Your task to perform on an android device: install app "Mercado Libre" Image 0: 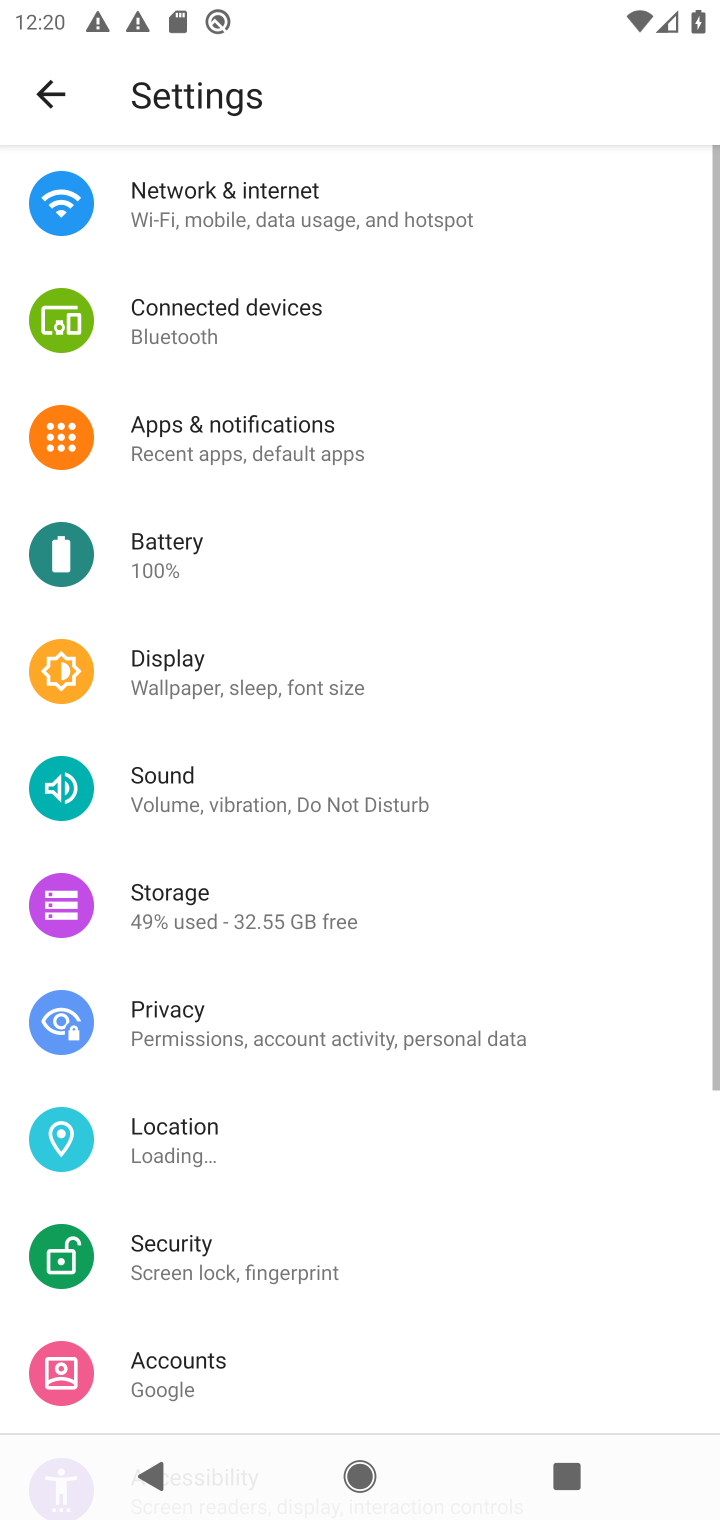
Step 0: press home button
Your task to perform on an android device: install app "Mercado Libre" Image 1: 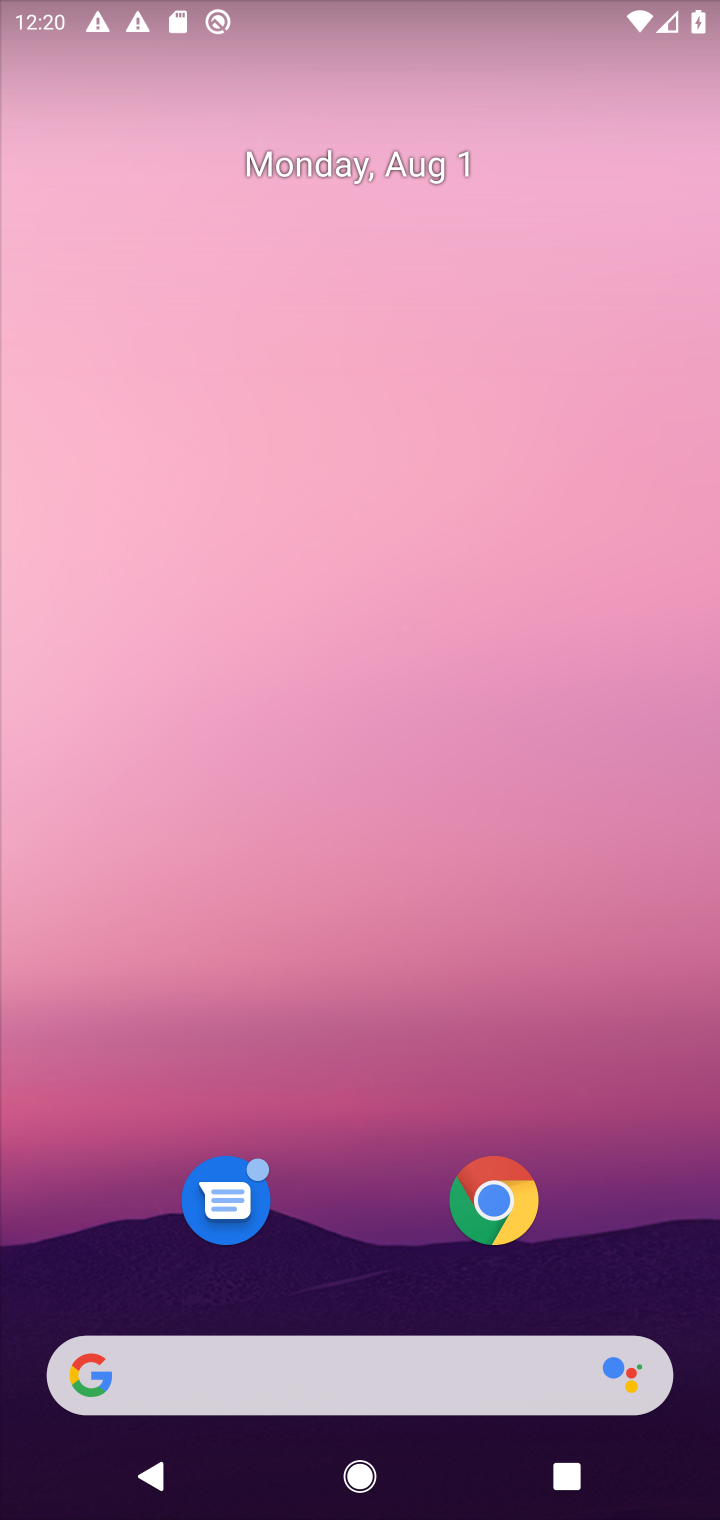
Step 1: click (498, 36)
Your task to perform on an android device: install app "Mercado Libre" Image 2: 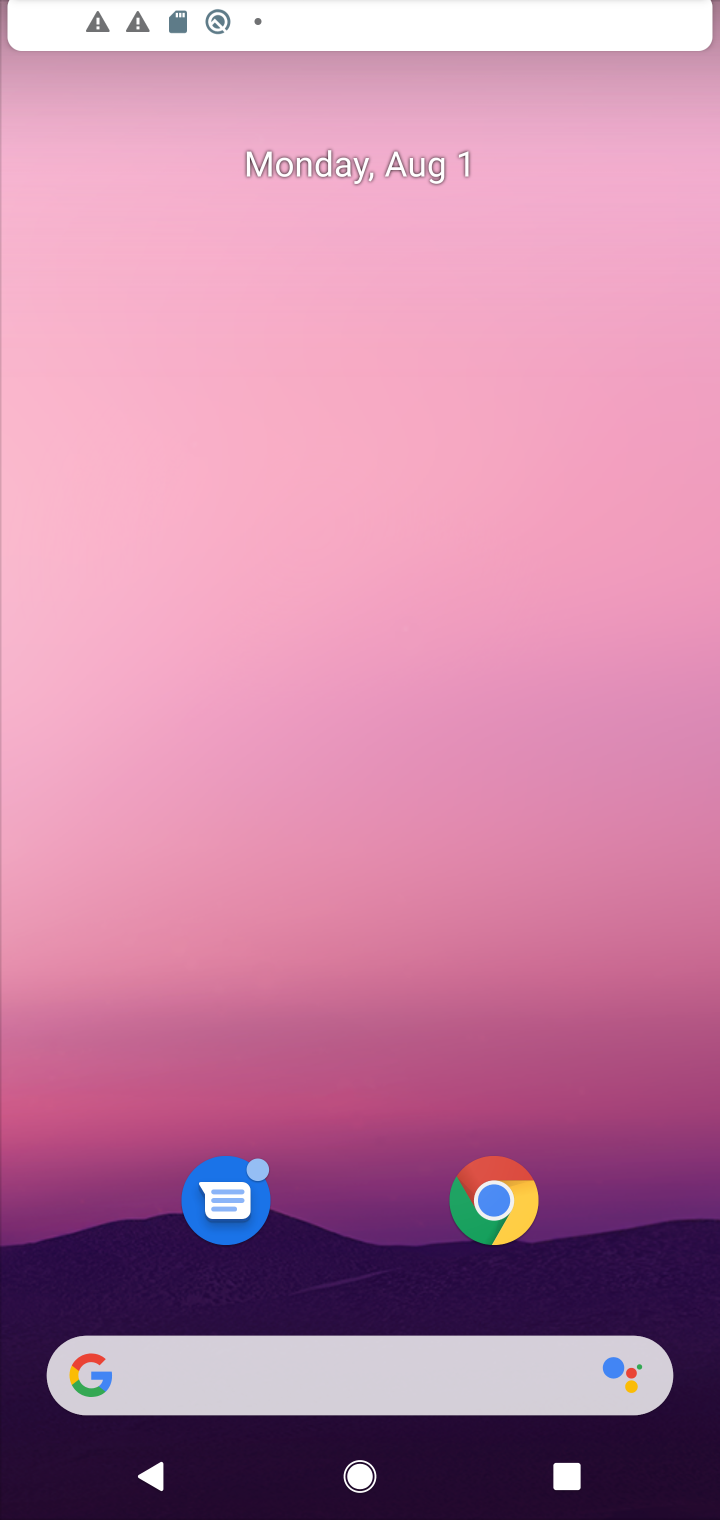
Step 2: click (283, 450)
Your task to perform on an android device: install app "Mercado Libre" Image 3: 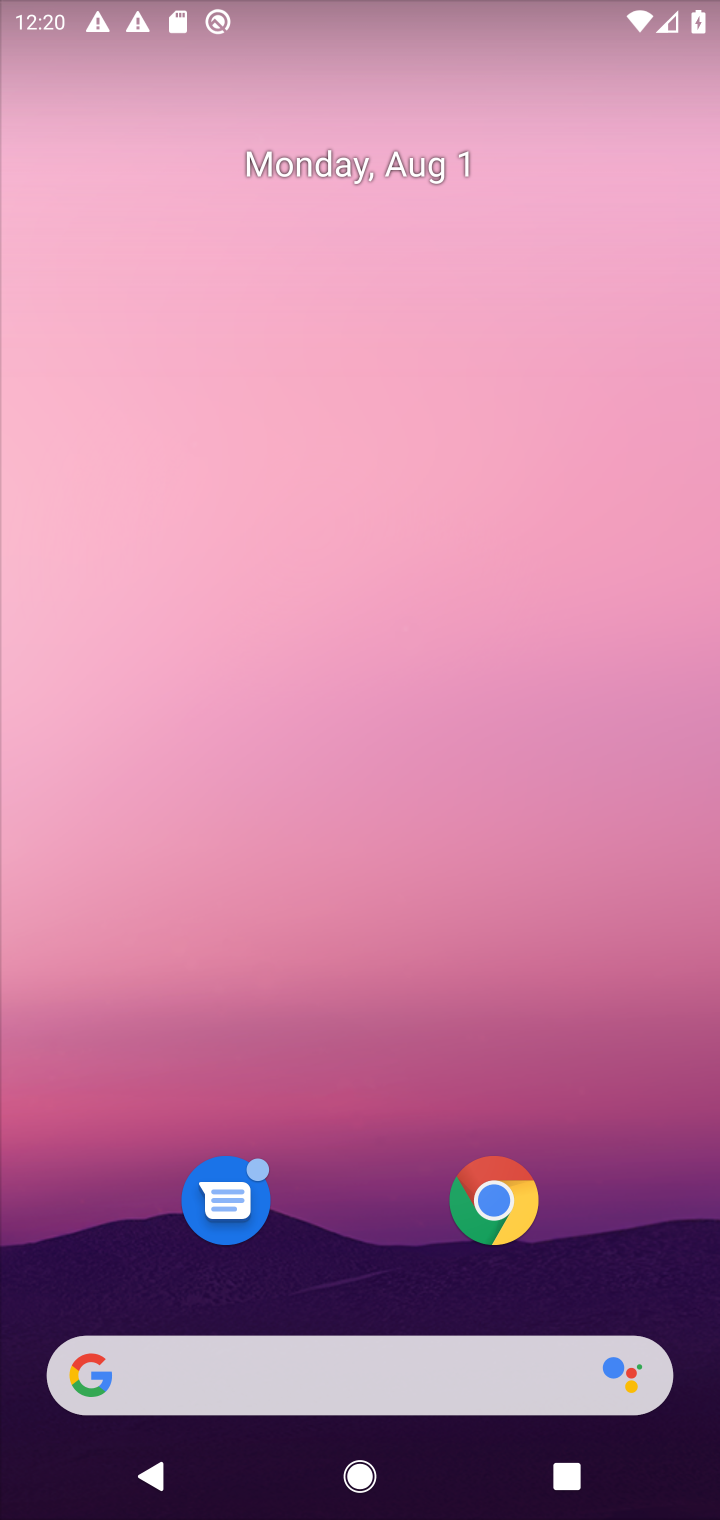
Step 3: drag from (378, 902) to (378, 85)
Your task to perform on an android device: install app "Mercado Libre" Image 4: 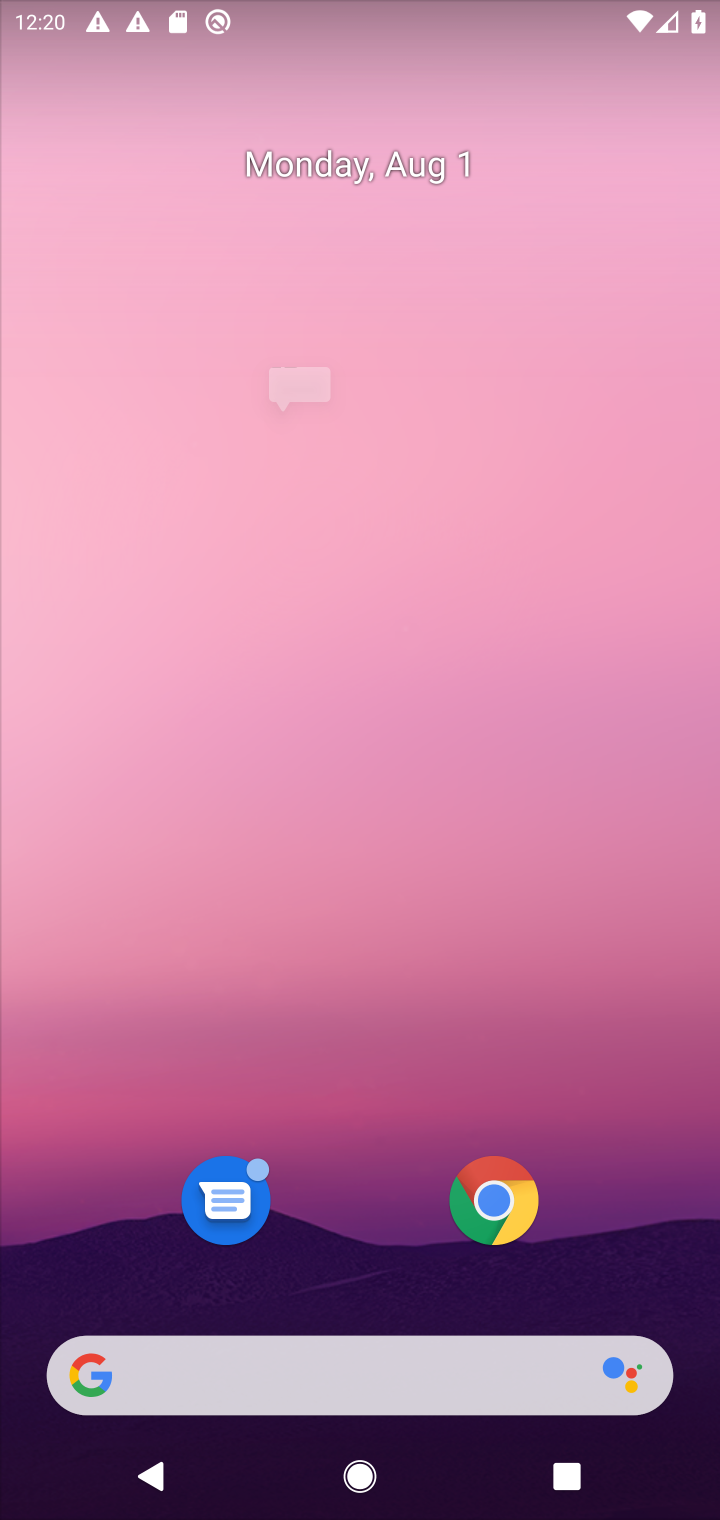
Step 4: click (380, 356)
Your task to perform on an android device: install app "Mercado Libre" Image 5: 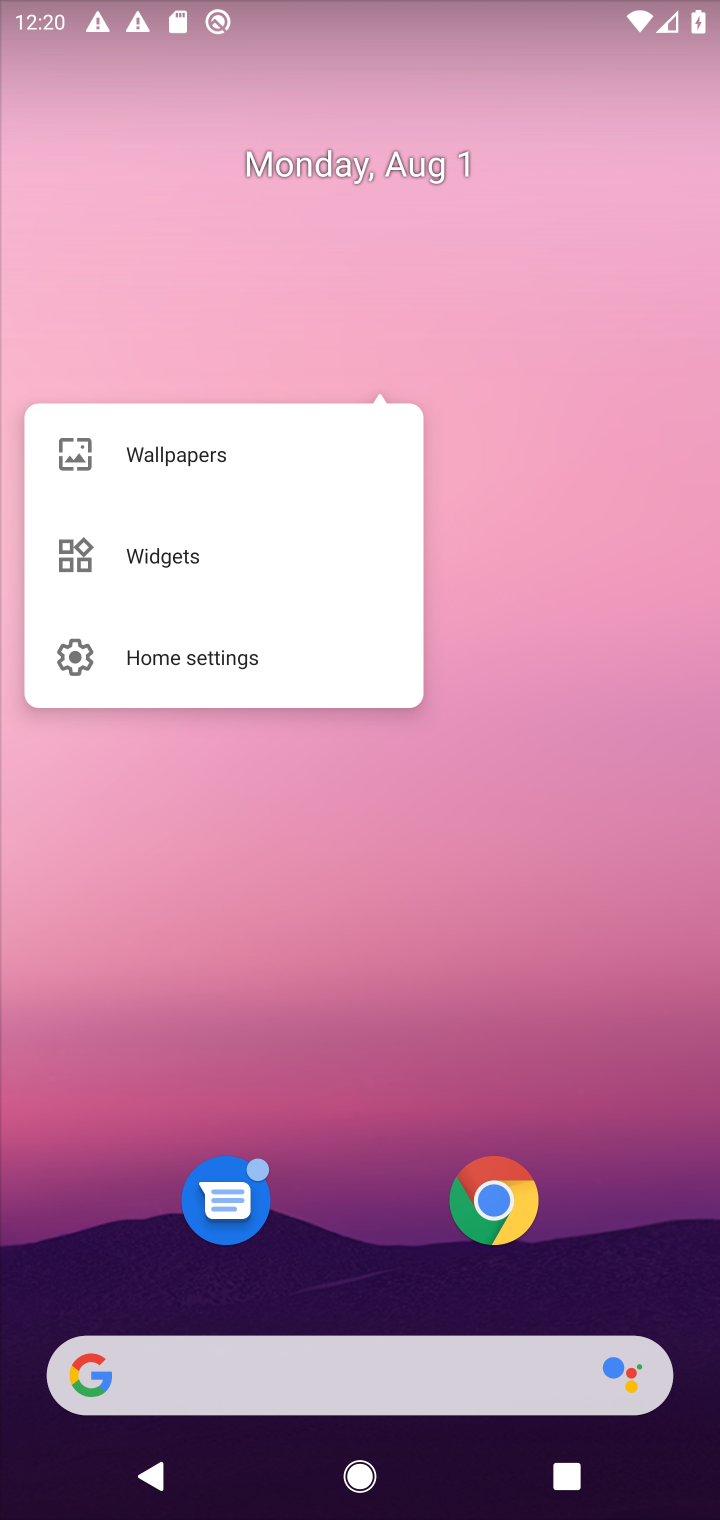
Step 5: drag from (361, 1153) to (350, 309)
Your task to perform on an android device: install app "Mercado Libre" Image 6: 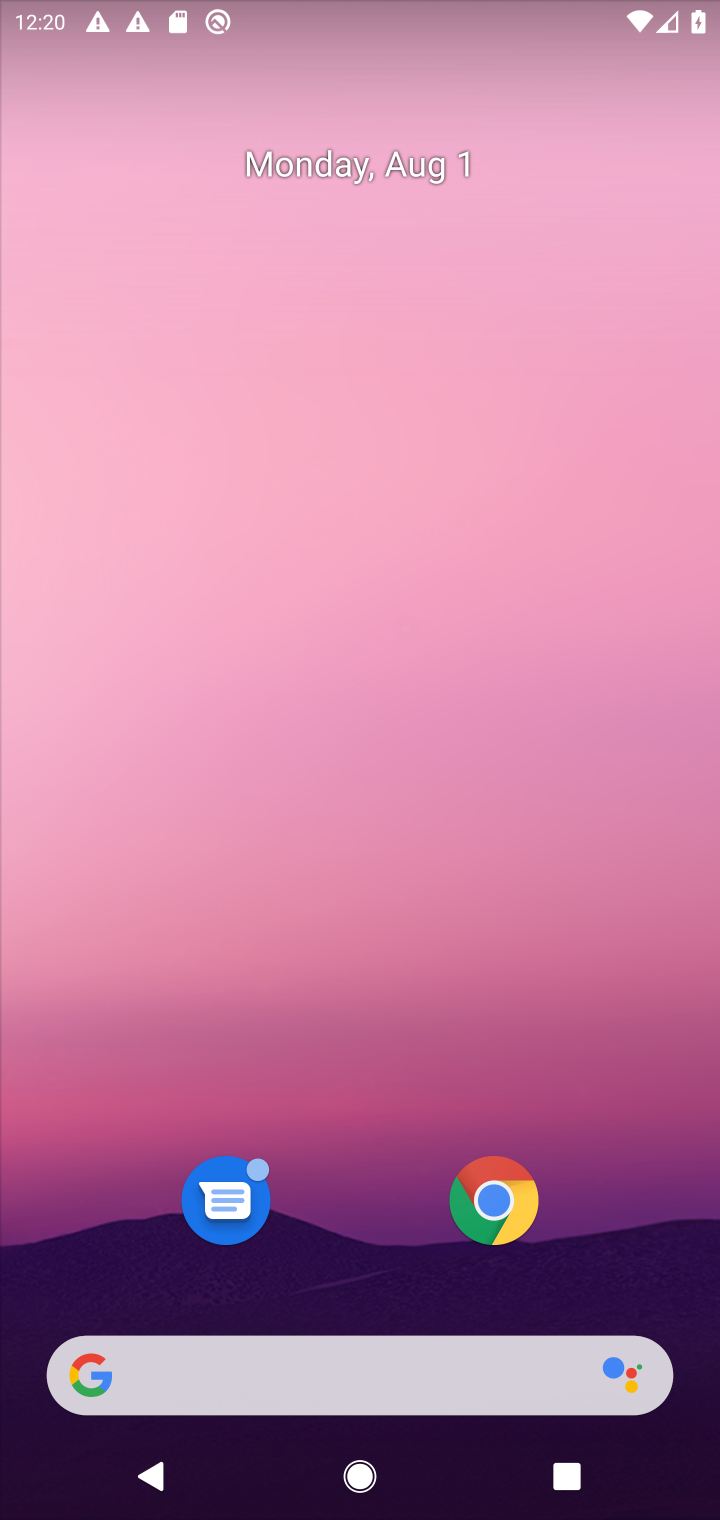
Step 6: drag from (338, 1296) to (306, 562)
Your task to perform on an android device: install app "Mercado Libre" Image 7: 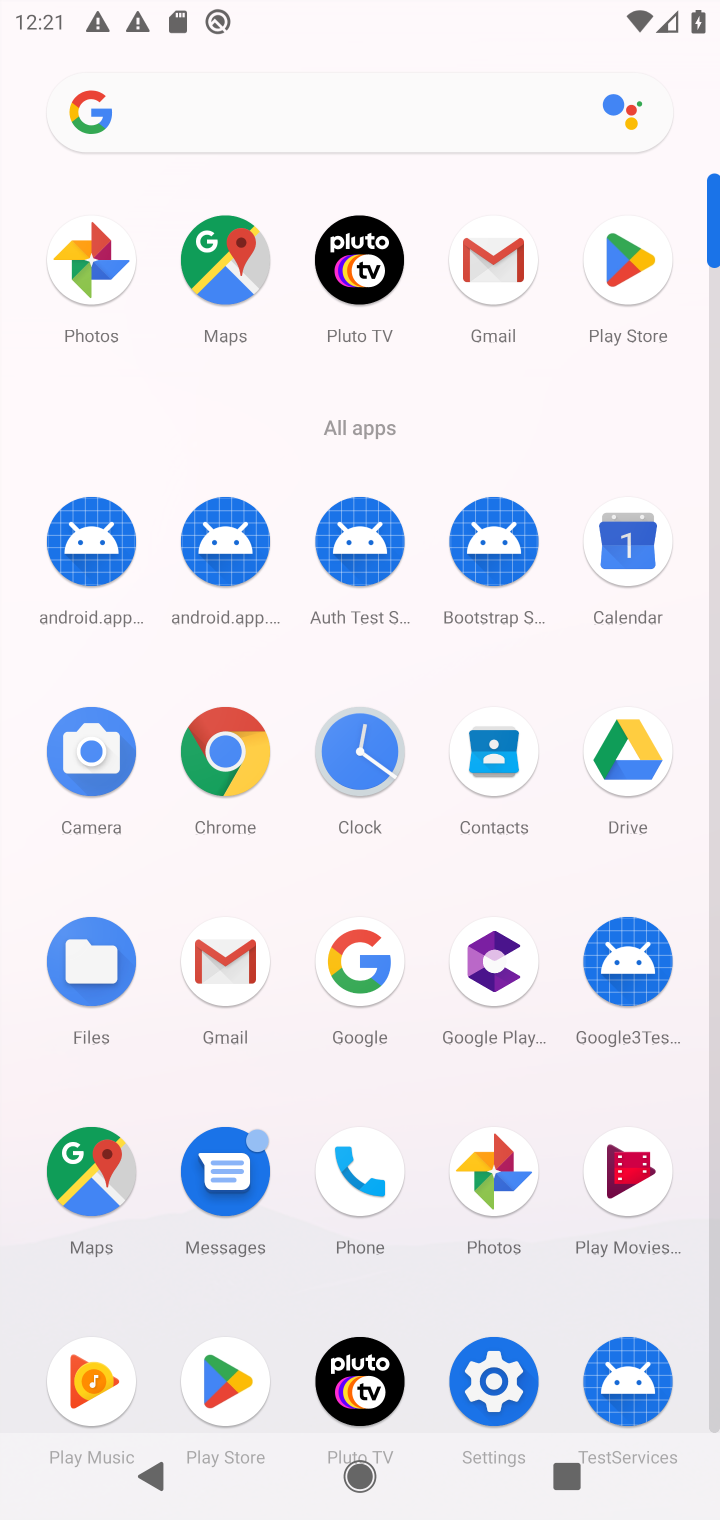
Step 7: click (614, 265)
Your task to perform on an android device: install app "Mercado Libre" Image 8: 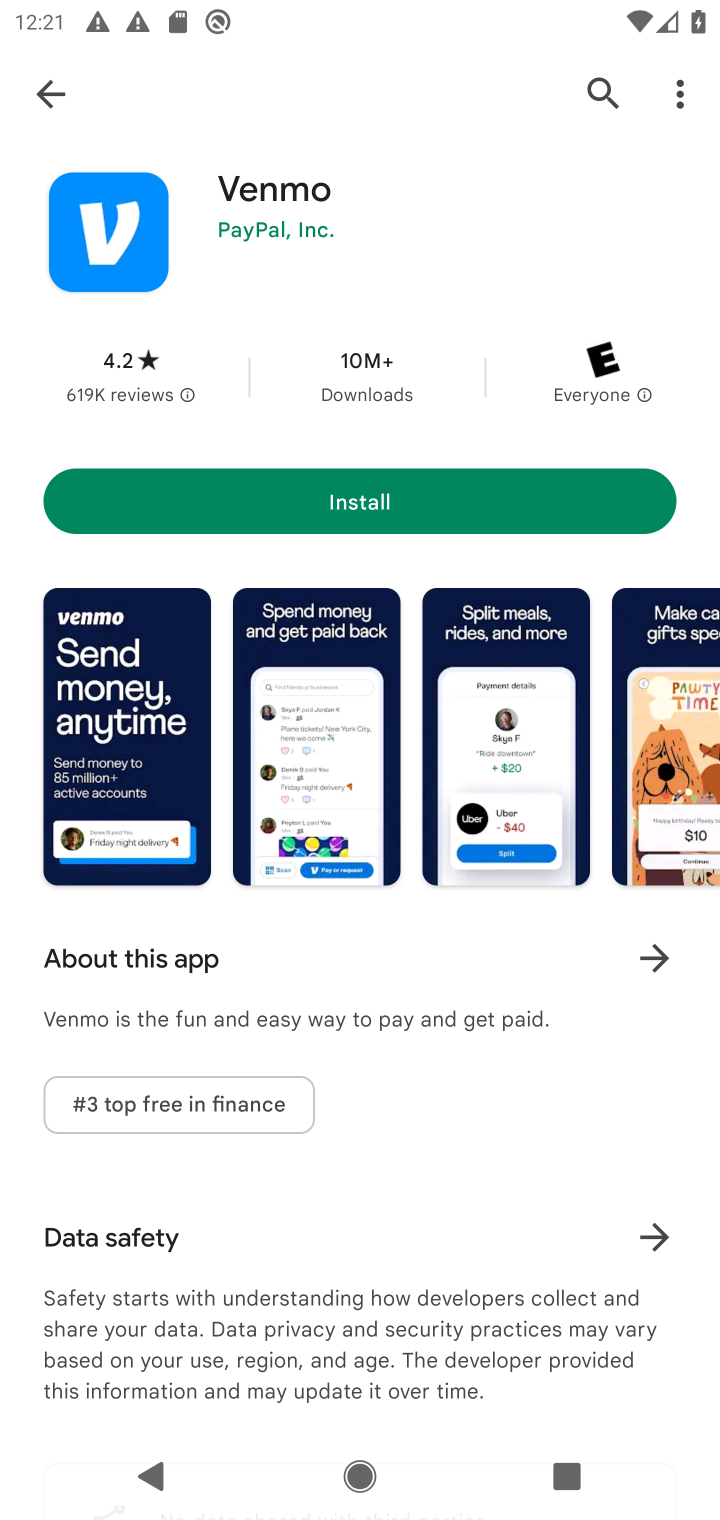
Step 8: click (639, 265)
Your task to perform on an android device: install app "Mercado Libre" Image 9: 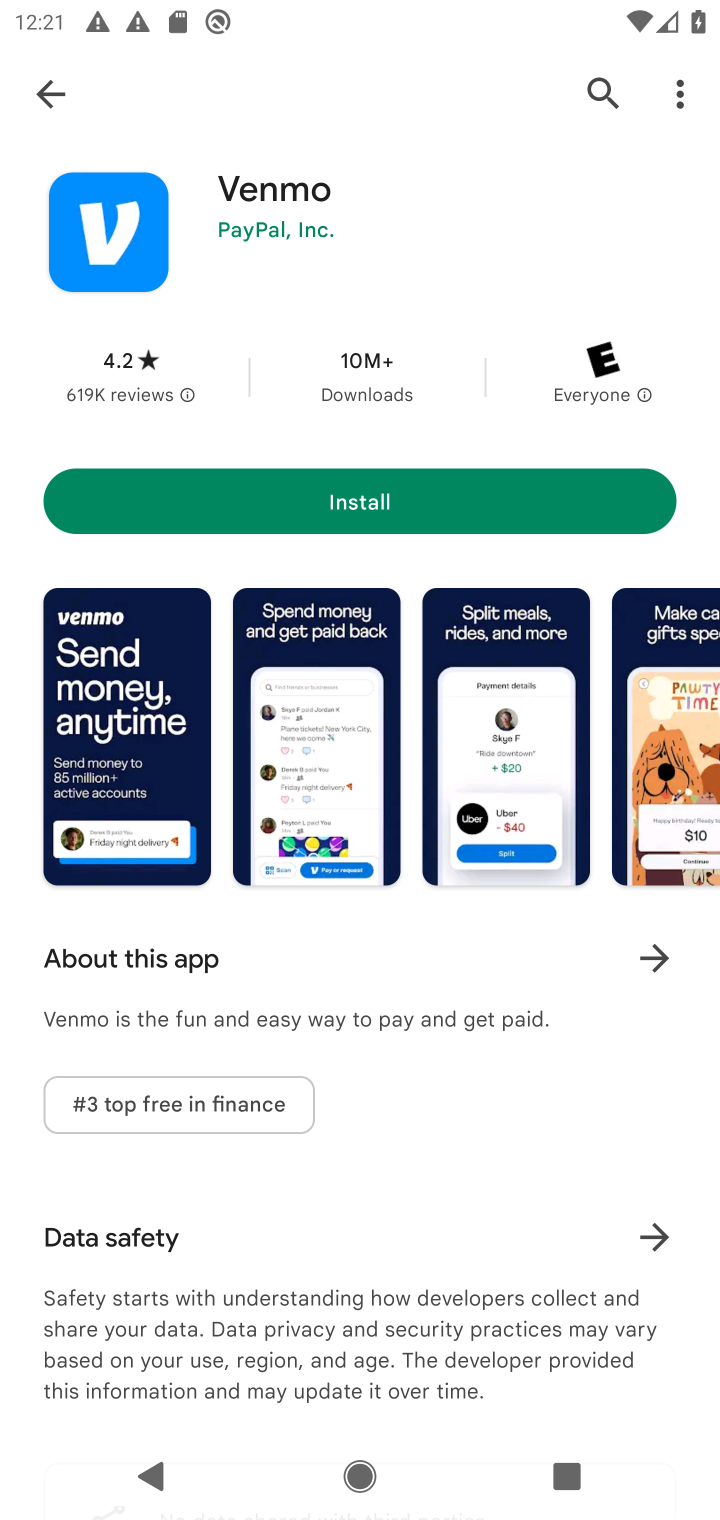
Step 9: click (616, 77)
Your task to perform on an android device: install app "Mercado Libre" Image 10: 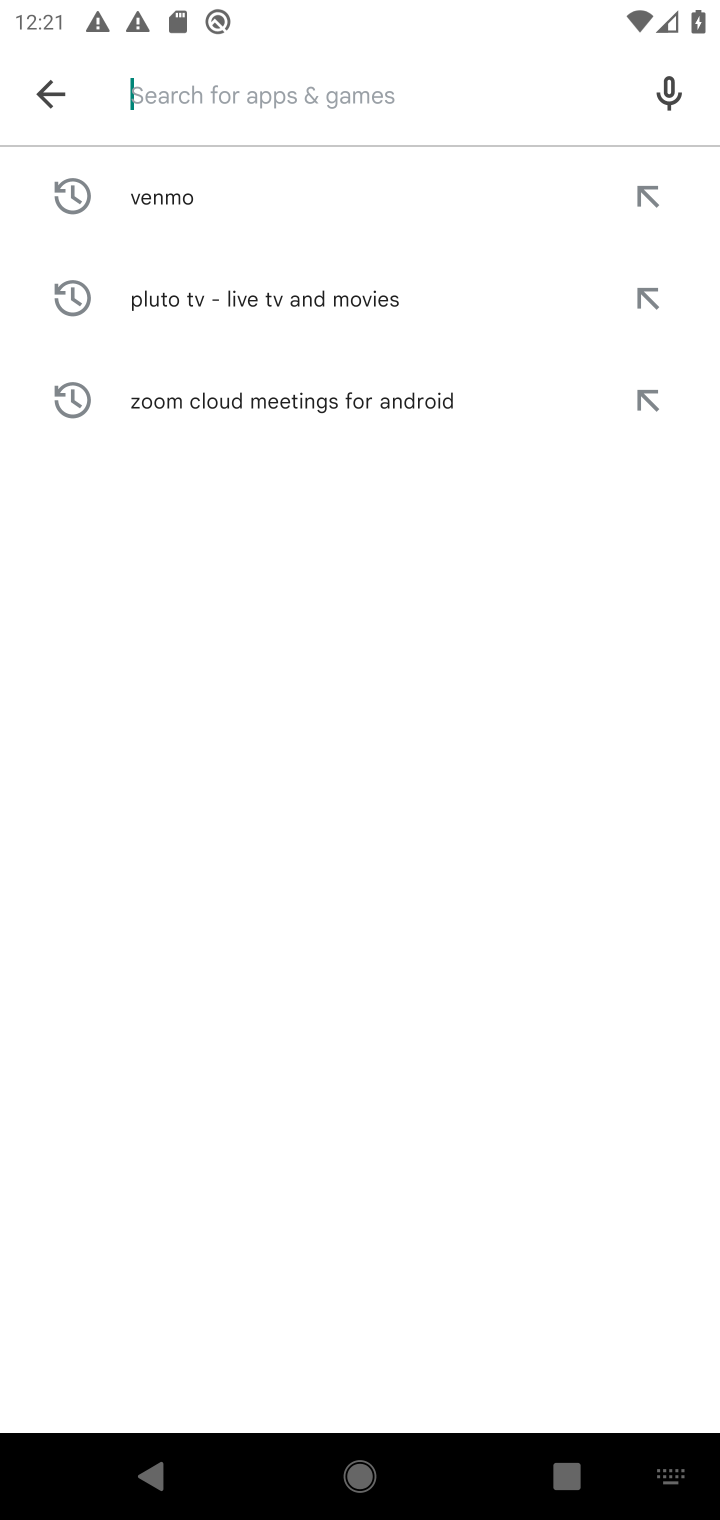
Step 10: click (596, 90)
Your task to perform on an android device: install app "Mercado Libre" Image 11: 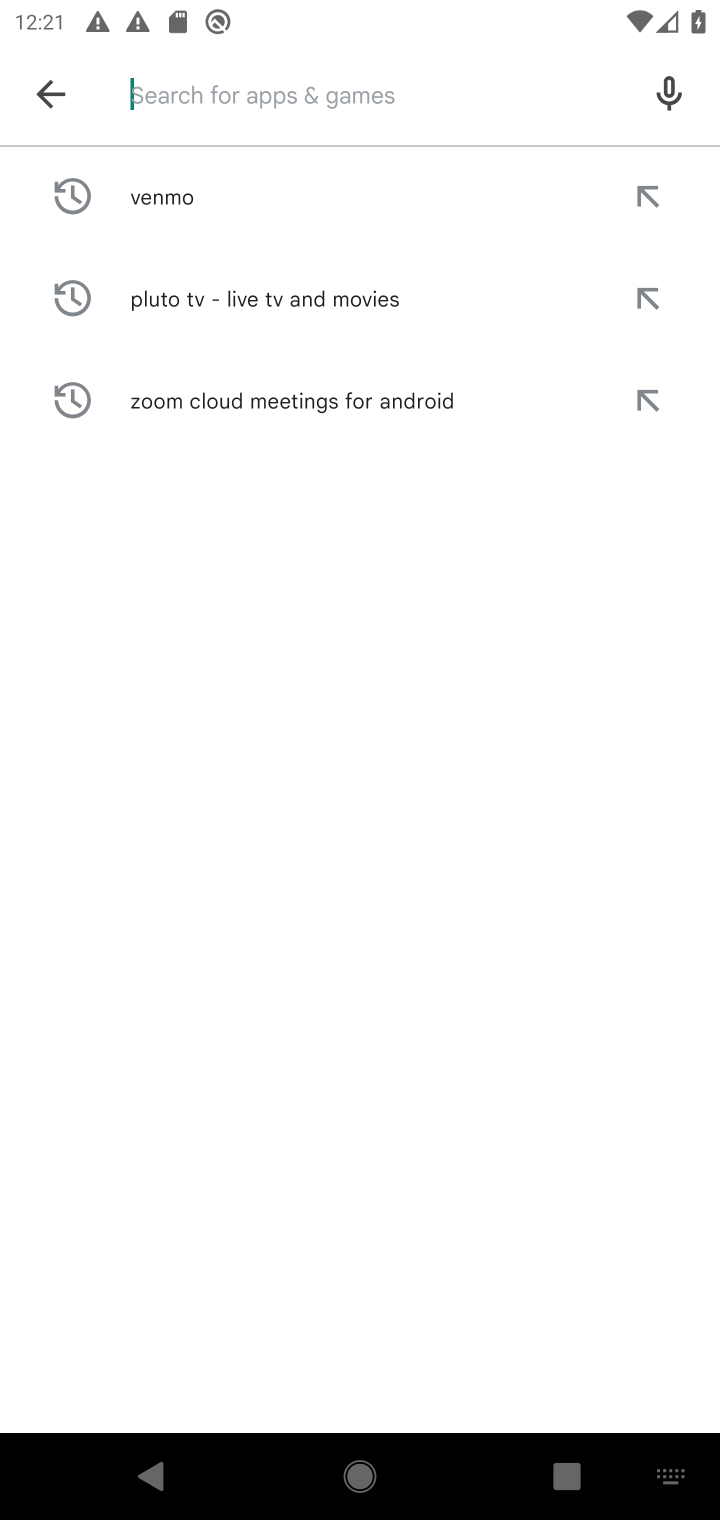
Step 11: type "mercado libre"
Your task to perform on an android device: install app "Mercado Libre" Image 12: 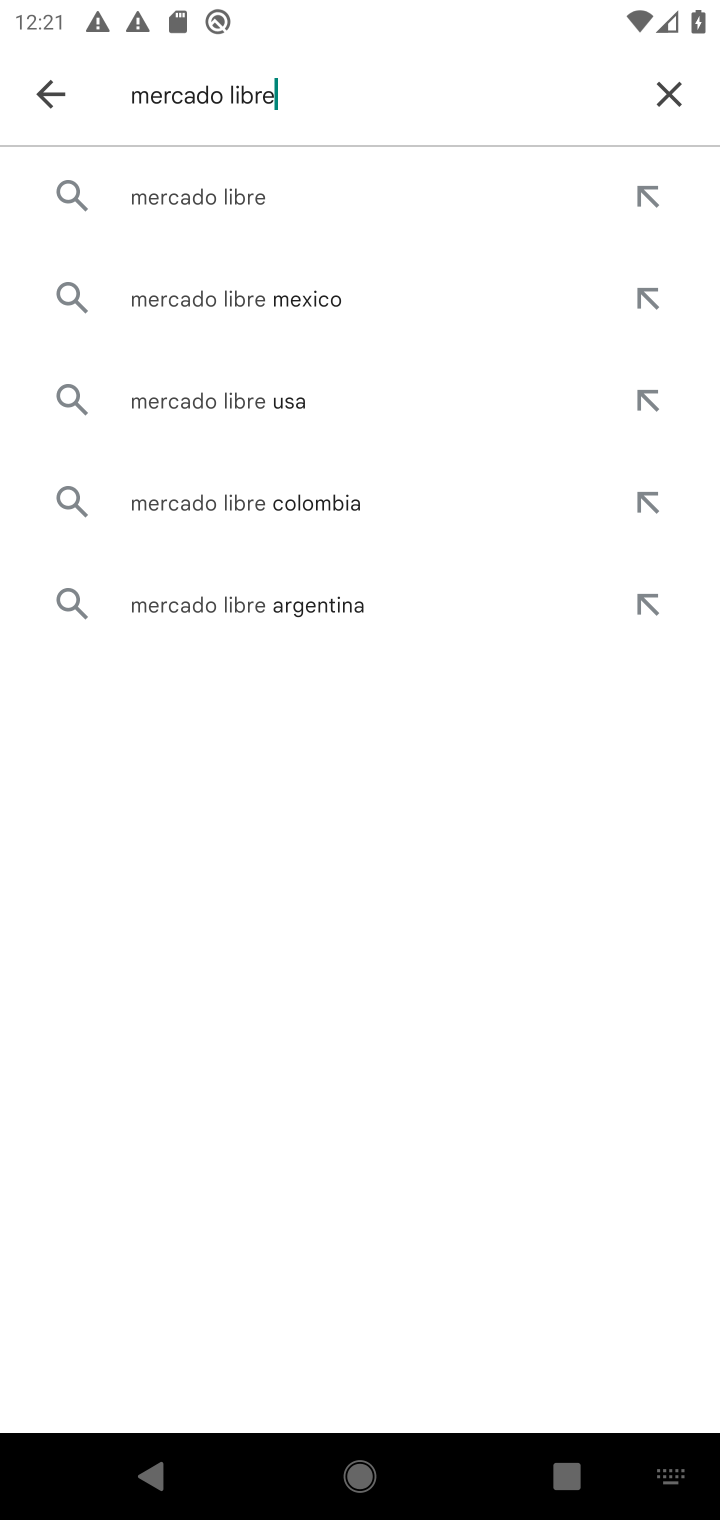
Step 12: click (294, 185)
Your task to perform on an android device: install app "Mercado Libre" Image 13: 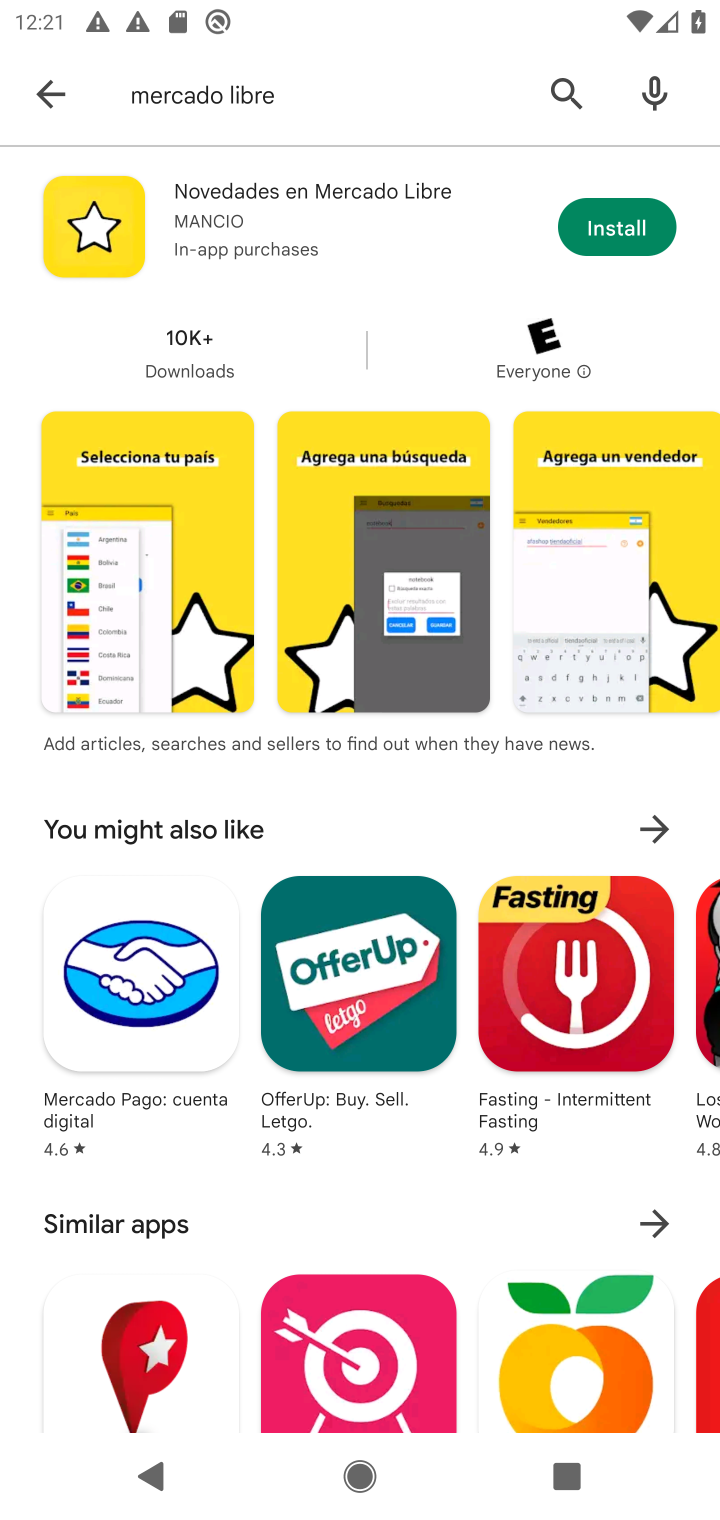
Step 13: click (316, 201)
Your task to perform on an android device: install app "Mercado Libre" Image 14: 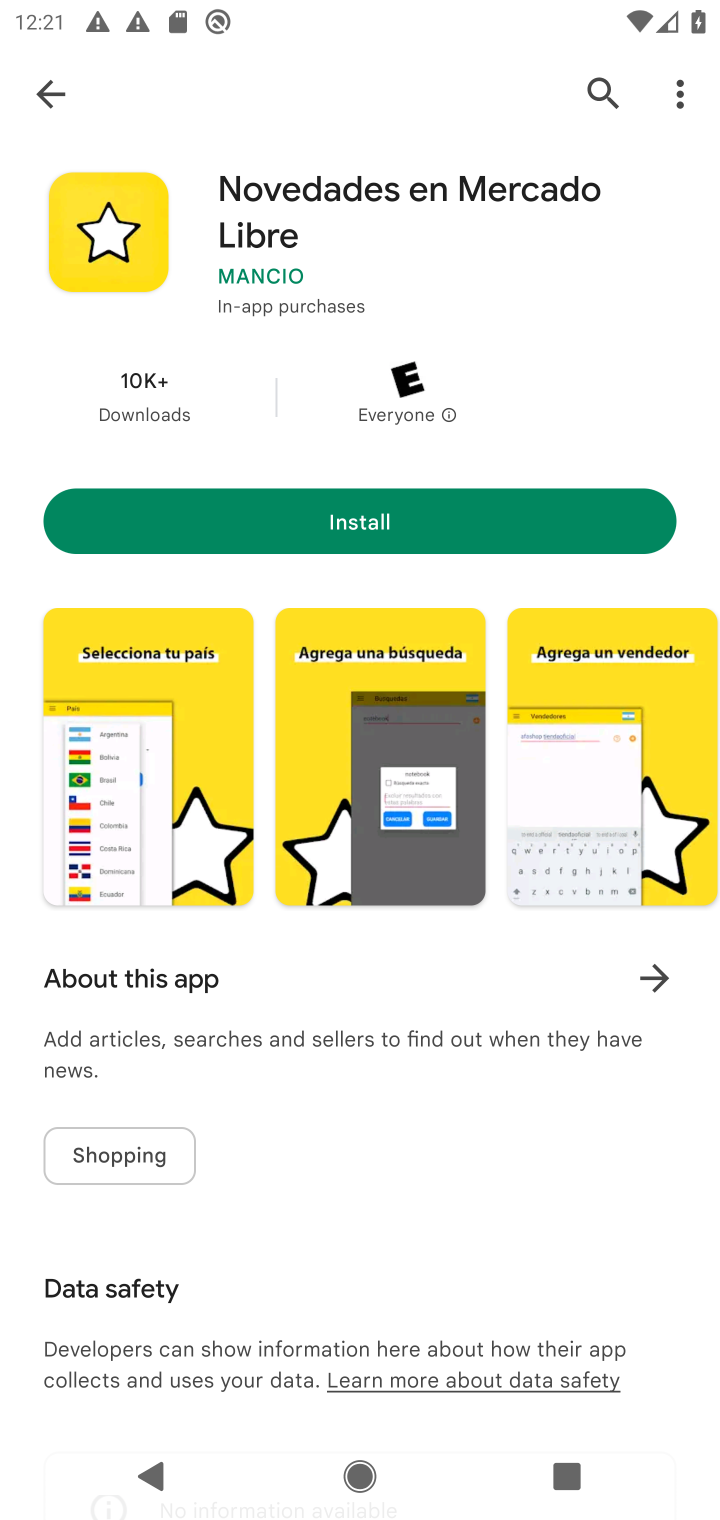
Step 14: click (176, 533)
Your task to perform on an android device: install app "Mercado Libre" Image 15: 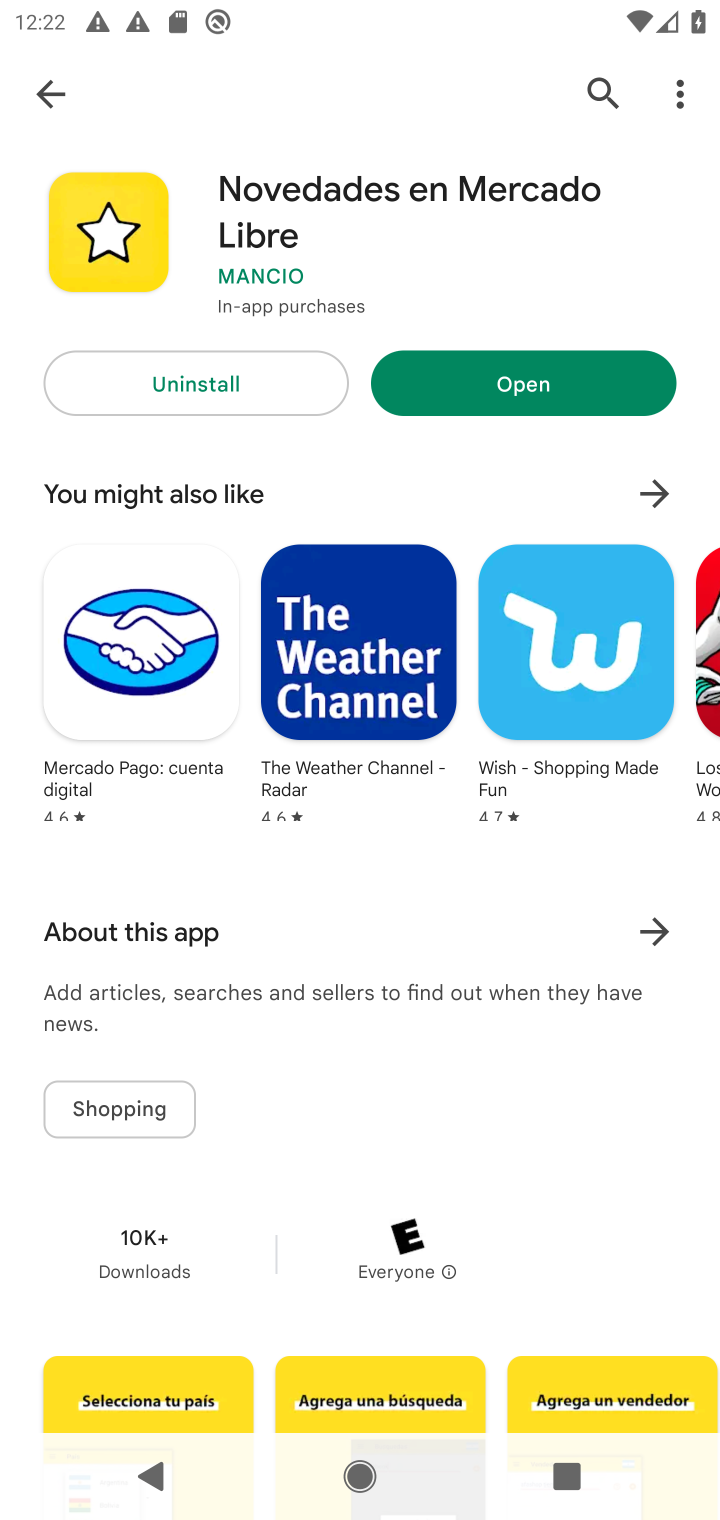
Step 15: task complete